Your task to perform on an android device: Set the phone to "Do not disturb". Image 0: 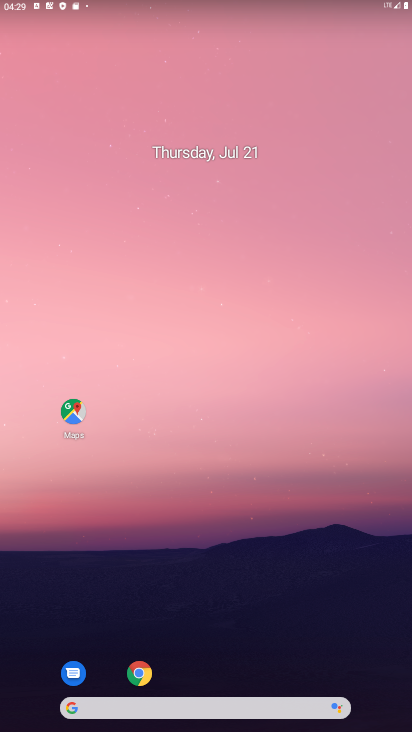
Step 0: drag from (383, 679) to (317, 110)
Your task to perform on an android device: Set the phone to "Do not disturb". Image 1: 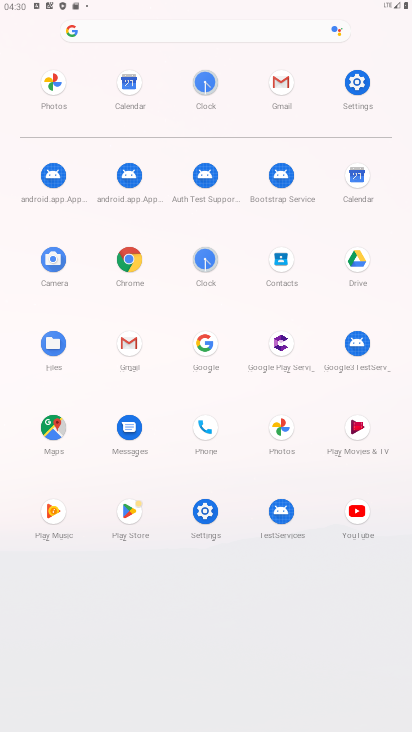
Step 1: click (205, 510)
Your task to perform on an android device: Set the phone to "Do not disturb". Image 2: 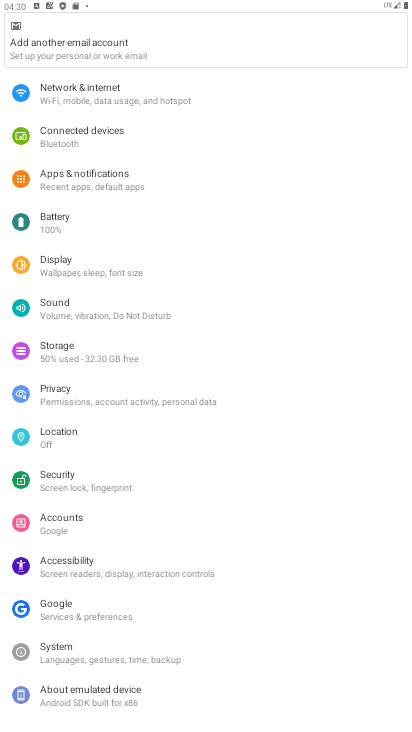
Step 2: click (73, 309)
Your task to perform on an android device: Set the phone to "Do not disturb". Image 3: 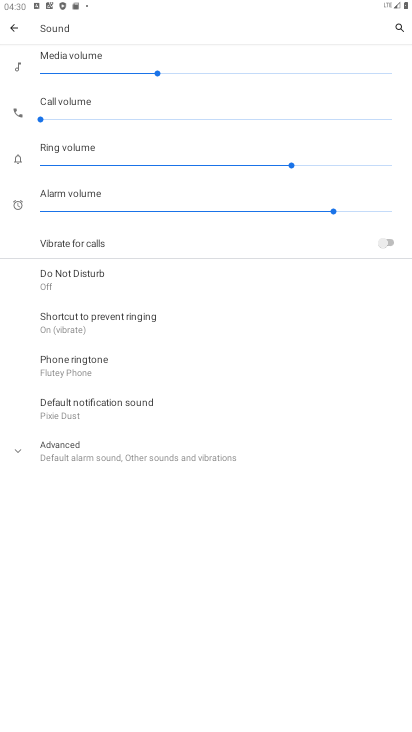
Step 3: click (62, 273)
Your task to perform on an android device: Set the phone to "Do not disturb". Image 4: 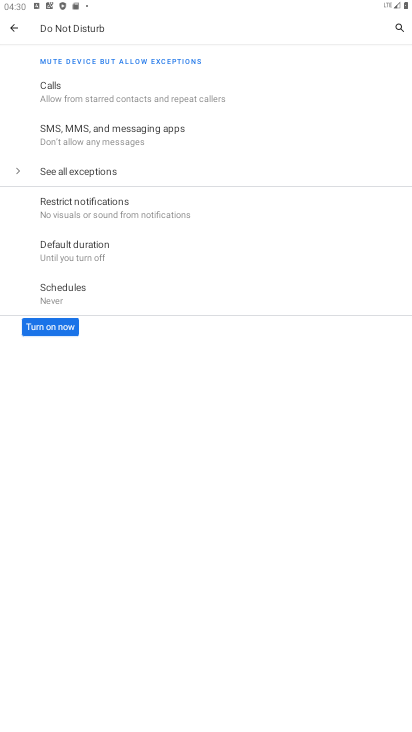
Step 4: click (47, 324)
Your task to perform on an android device: Set the phone to "Do not disturb". Image 5: 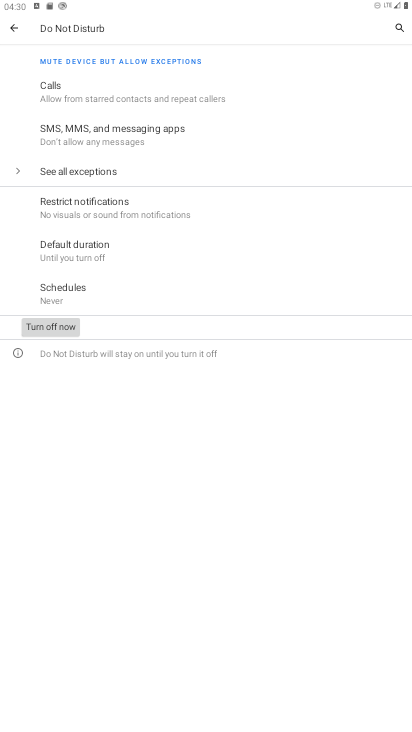
Step 5: task complete